Your task to perform on an android device: Open Google Image 0: 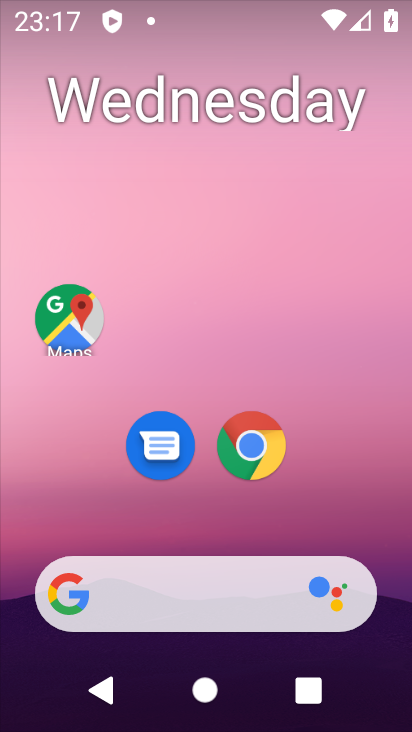
Step 0: click (135, 588)
Your task to perform on an android device: Open Google Image 1: 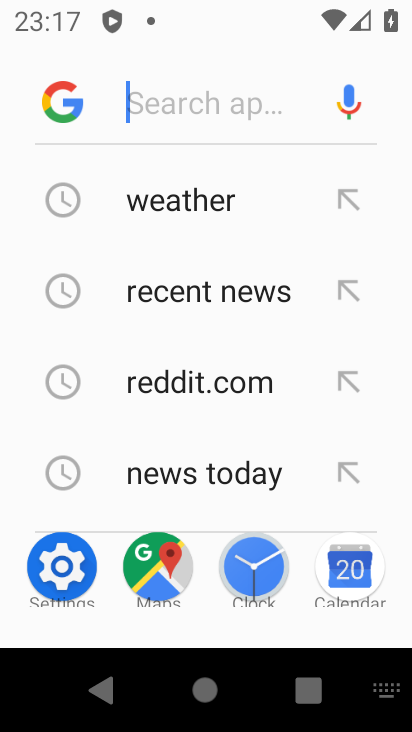
Step 1: task complete